Your task to perform on an android device: Go to Wikipedia Image 0: 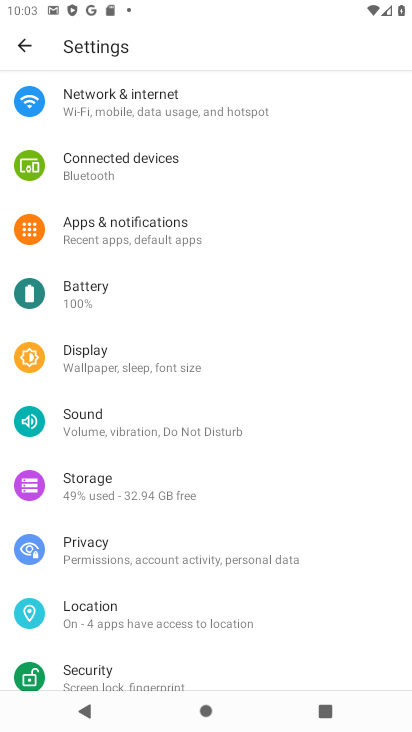
Step 0: press home button
Your task to perform on an android device: Go to Wikipedia Image 1: 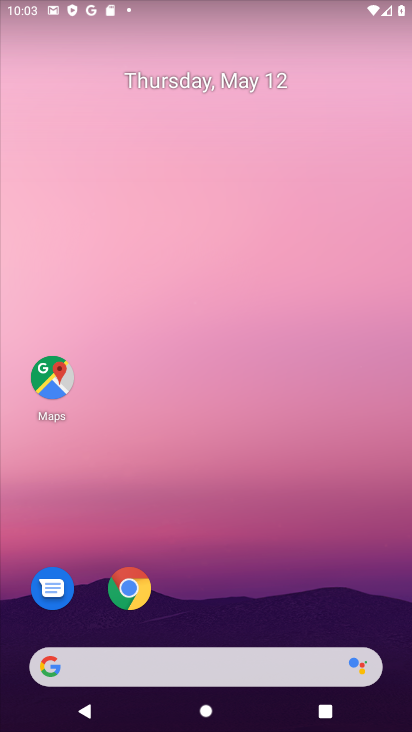
Step 1: click (113, 588)
Your task to perform on an android device: Go to Wikipedia Image 2: 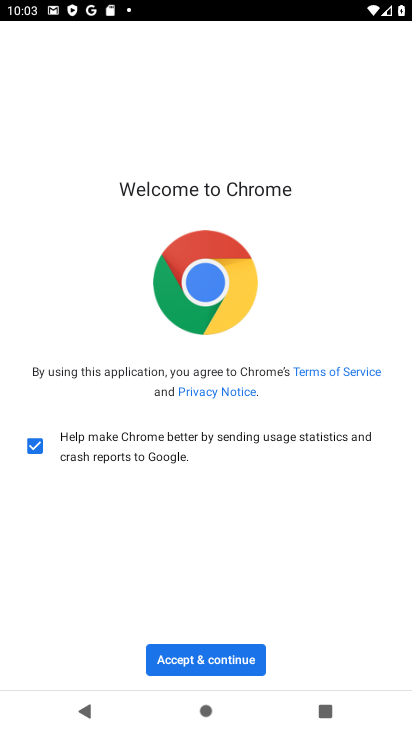
Step 2: click (204, 670)
Your task to perform on an android device: Go to Wikipedia Image 3: 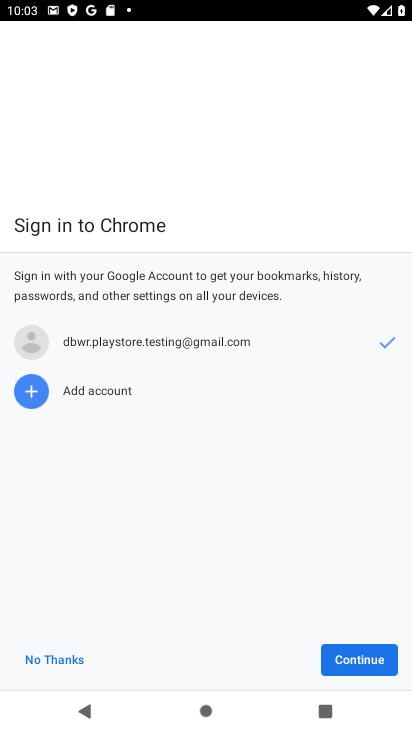
Step 3: click (367, 667)
Your task to perform on an android device: Go to Wikipedia Image 4: 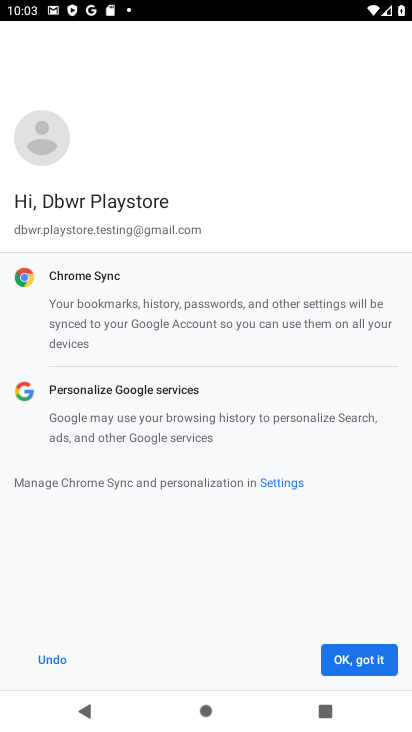
Step 4: click (360, 662)
Your task to perform on an android device: Go to Wikipedia Image 5: 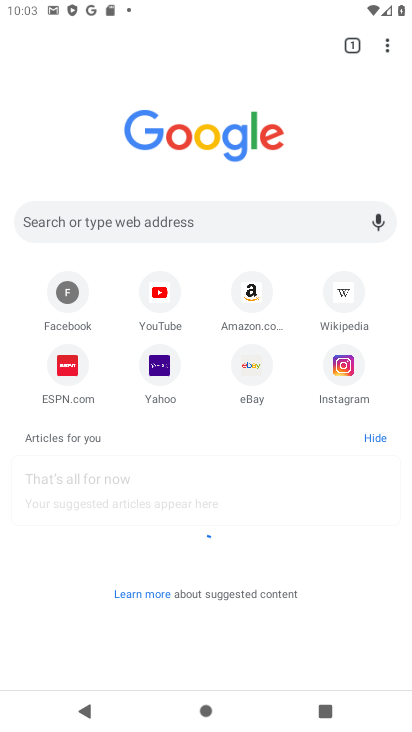
Step 5: click (350, 297)
Your task to perform on an android device: Go to Wikipedia Image 6: 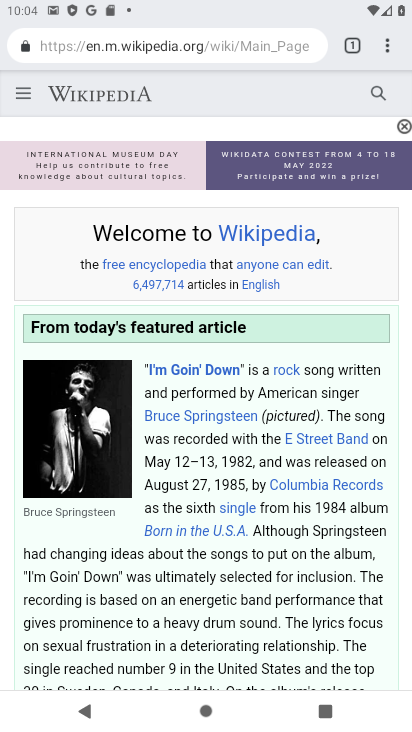
Step 6: task complete